Your task to perform on an android device: turn off location Image 0: 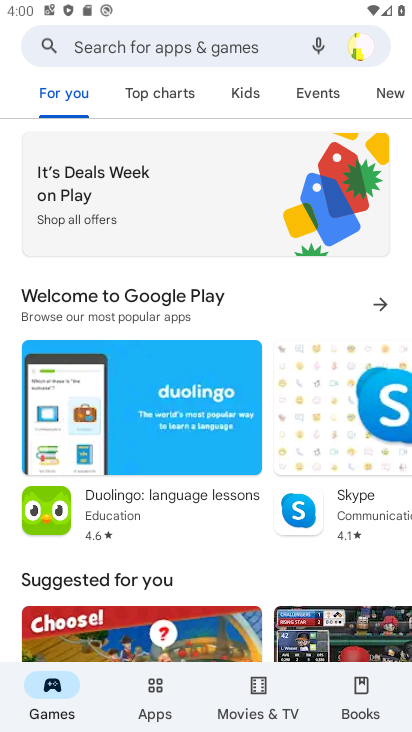
Step 0: press home button
Your task to perform on an android device: turn off location Image 1: 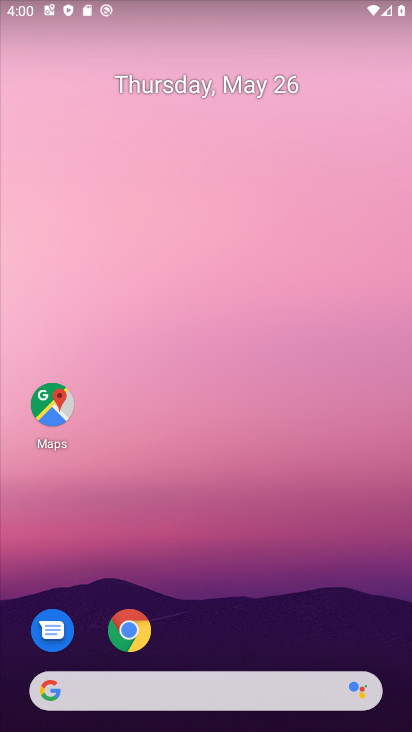
Step 1: drag from (225, 628) to (279, 160)
Your task to perform on an android device: turn off location Image 2: 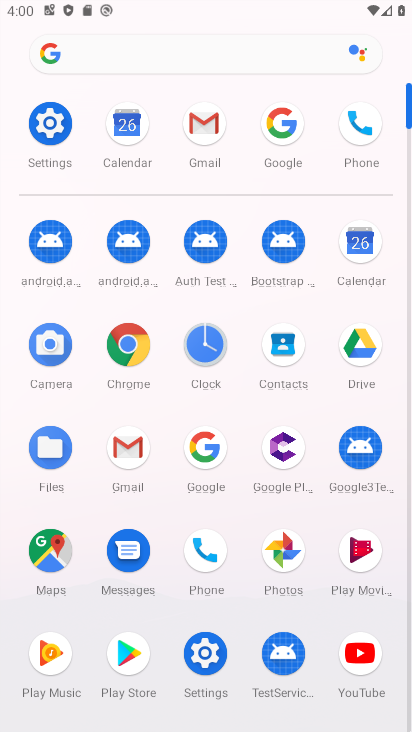
Step 2: click (49, 123)
Your task to perform on an android device: turn off location Image 3: 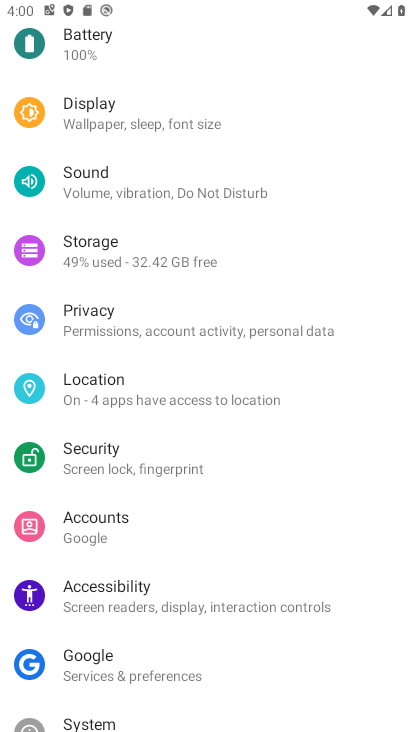
Step 3: drag from (176, 221) to (168, 300)
Your task to perform on an android device: turn off location Image 4: 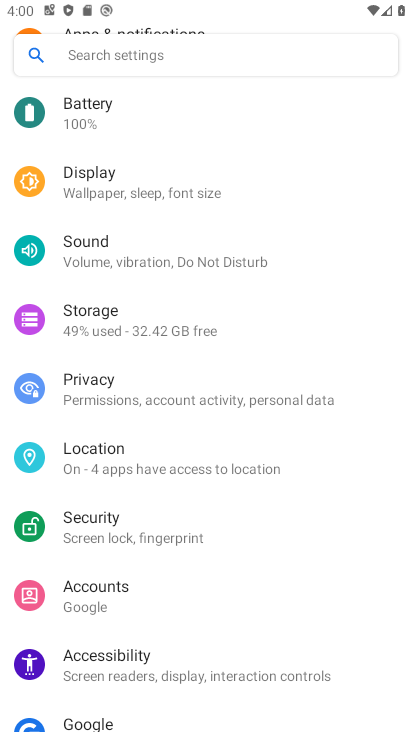
Step 4: drag from (158, 156) to (180, 223)
Your task to perform on an android device: turn off location Image 5: 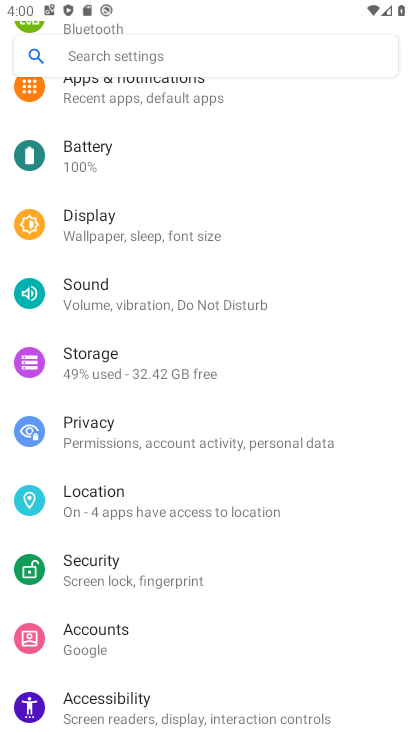
Step 5: click (138, 498)
Your task to perform on an android device: turn off location Image 6: 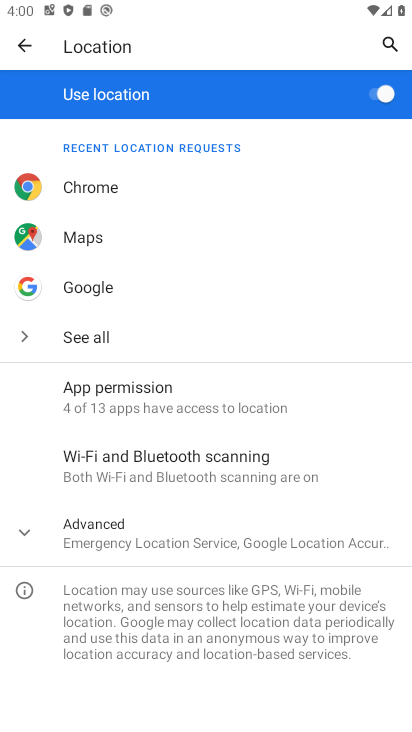
Step 6: click (374, 97)
Your task to perform on an android device: turn off location Image 7: 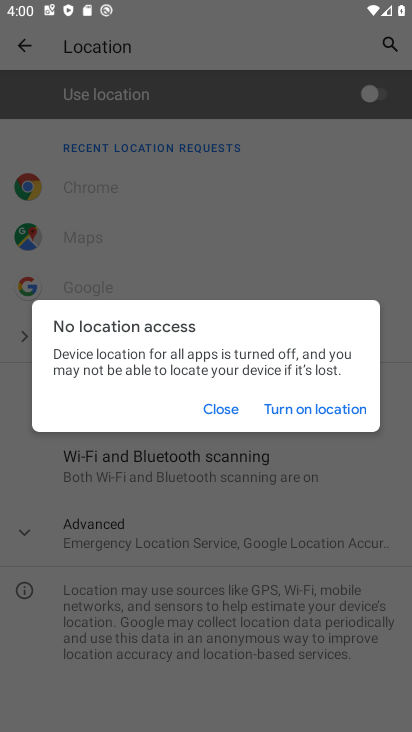
Step 7: click (227, 400)
Your task to perform on an android device: turn off location Image 8: 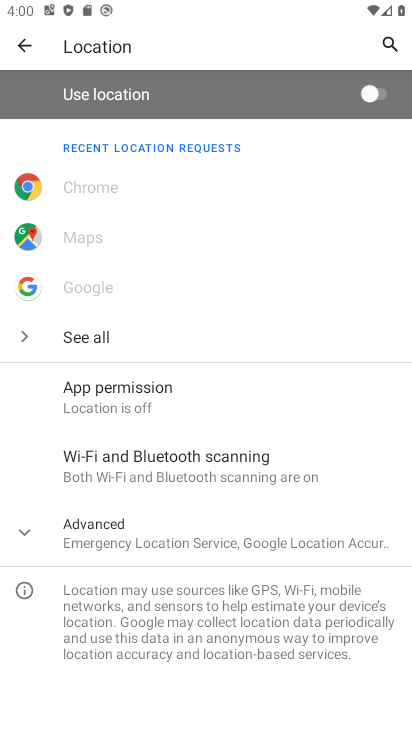
Step 8: task complete